Your task to perform on an android device: Check the news Image 0: 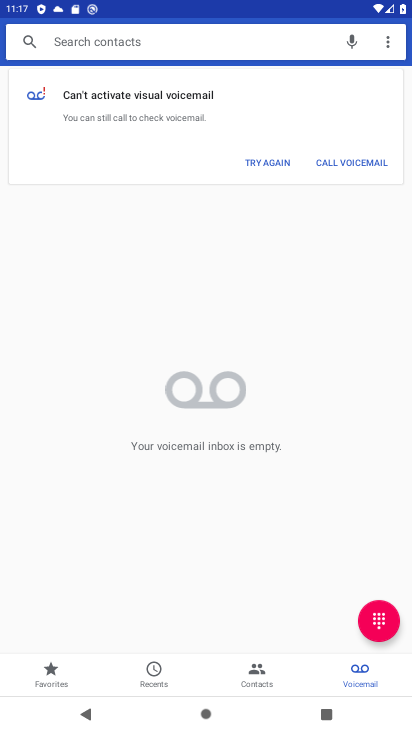
Step 0: press home button
Your task to perform on an android device: Check the news Image 1: 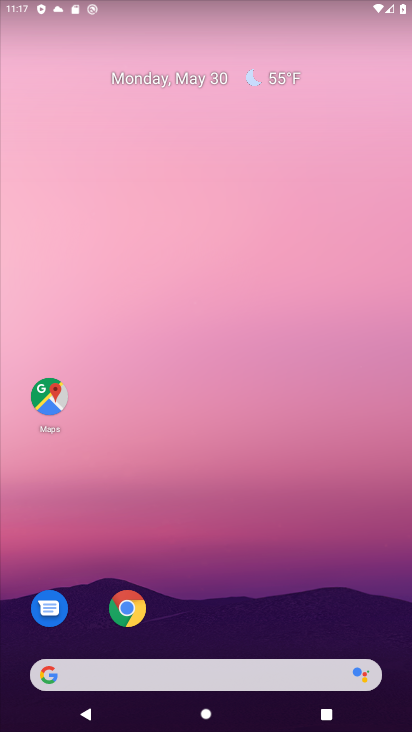
Step 1: click (108, 678)
Your task to perform on an android device: Check the news Image 2: 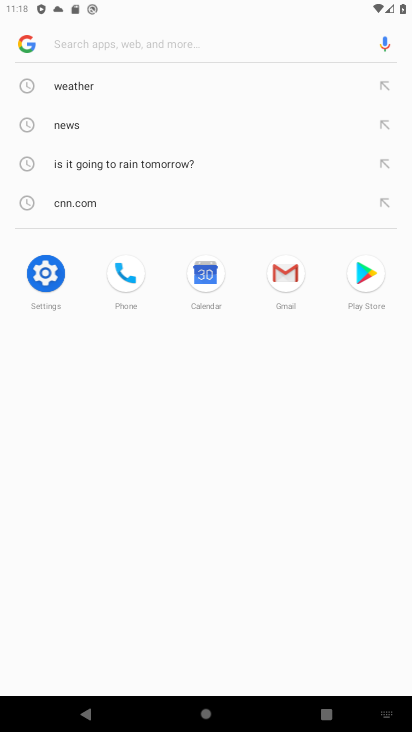
Step 2: click (62, 128)
Your task to perform on an android device: Check the news Image 3: 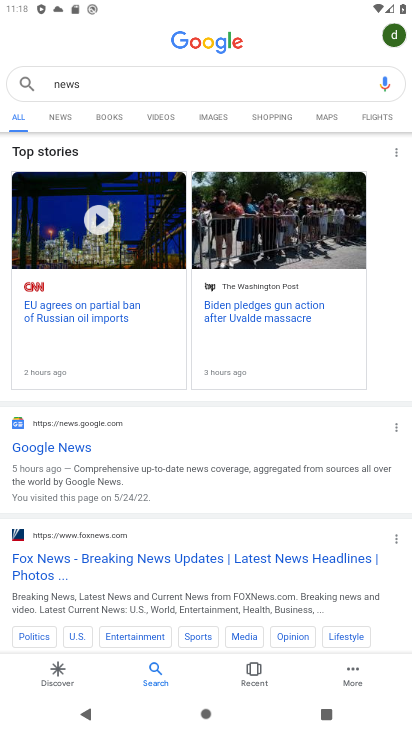
Step 3: click (63, 124)
Your task to perform on an android device: Check the news Image 4: 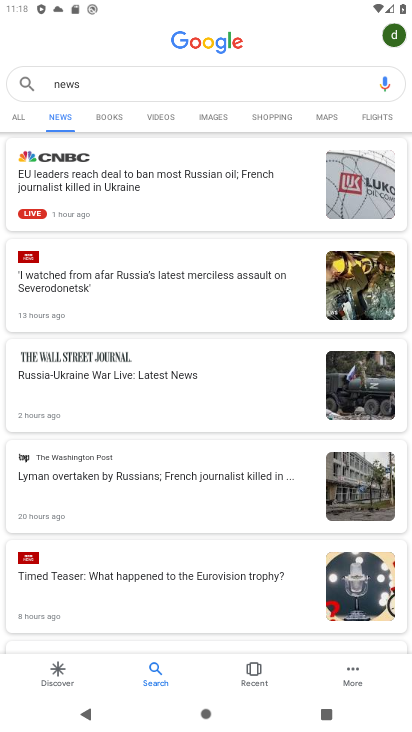
Step 4: task complete